Your task to perform on an android device: show emergency info Image 0: 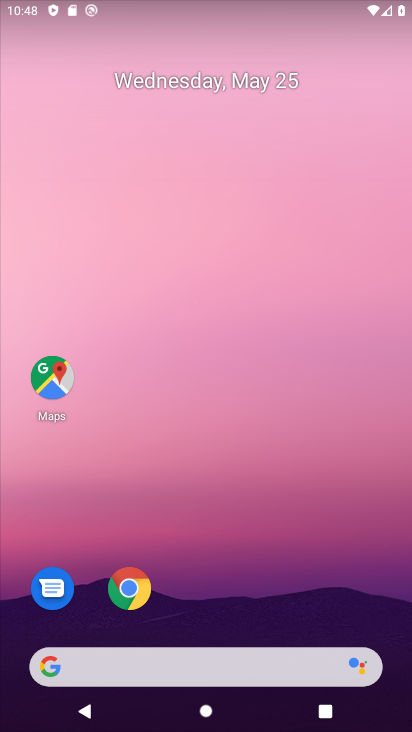
Step 0: drag from (202, 621) to (209, 156)
Your task to perform on an android device: show emergency info Image 1: 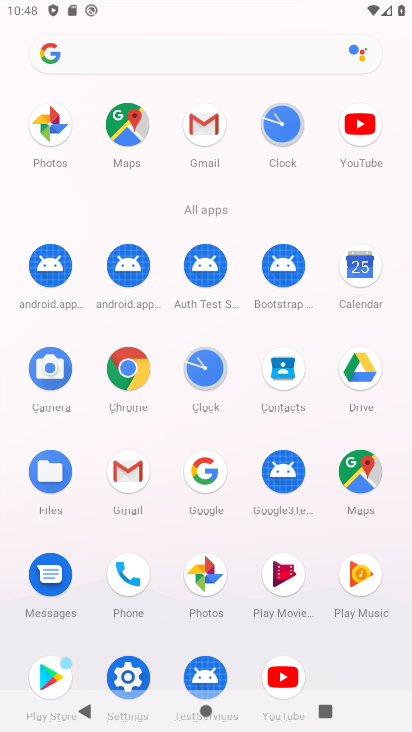
Step 1: click (130, 668)
Your task to perform on an android device: show emergency info Image 2: 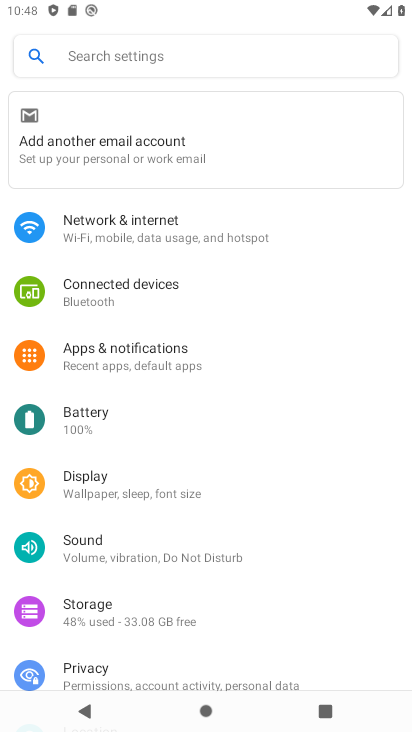
Step 2: drag from (130, 668) to (185, 118)
Your task to perform on an android device: show emergency info Image 3: 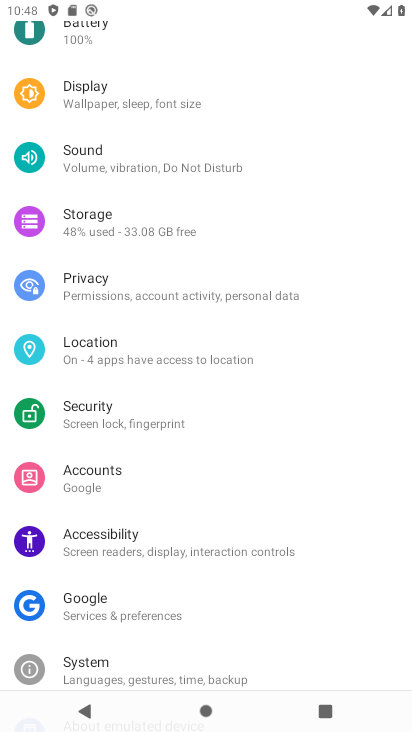
Step 3: drag from (91, 680) to (233, 162)
Your task to perform on an android device: show emergency info Image 4: 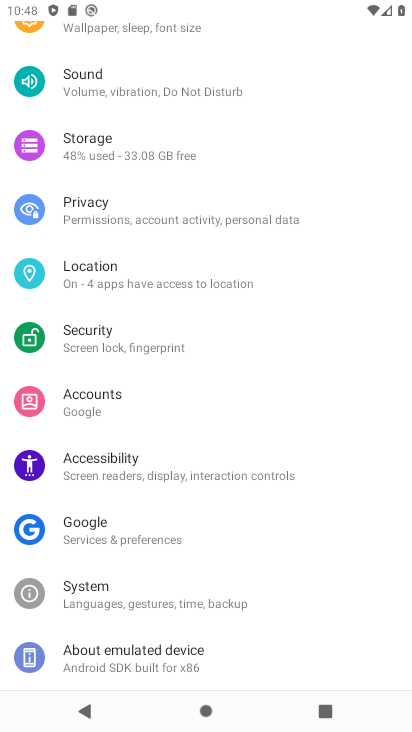
Step 4: click (85, 658)
Your task to perform on an android device: show emergency info Image 5: 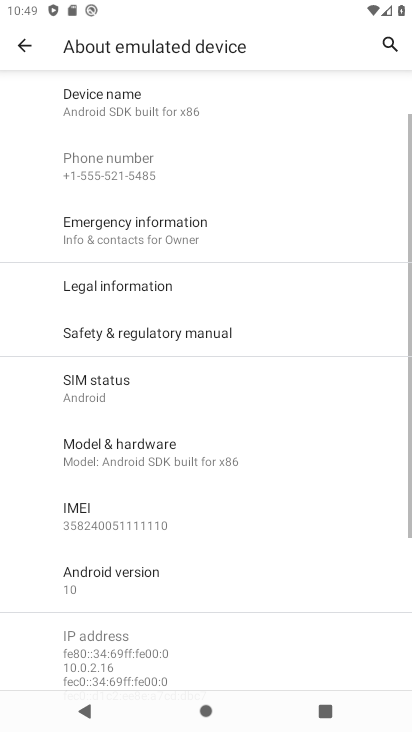
Step 5: click (183, 234)
Your task to perform on an android device: show emergency info Image 6: 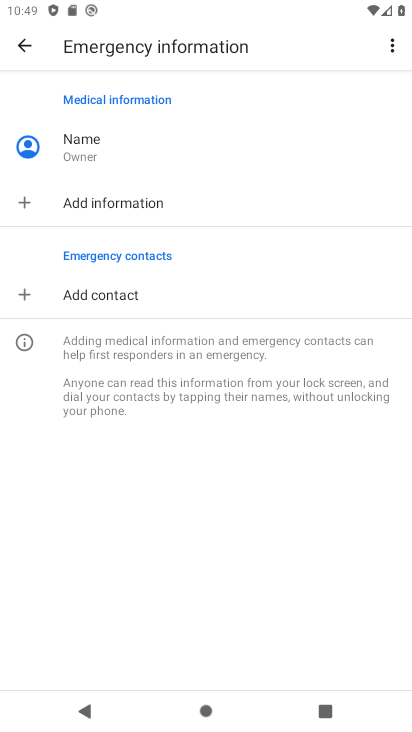
Step 6: task complete